Your task to perform on an android device: Open sound settings Image 0: 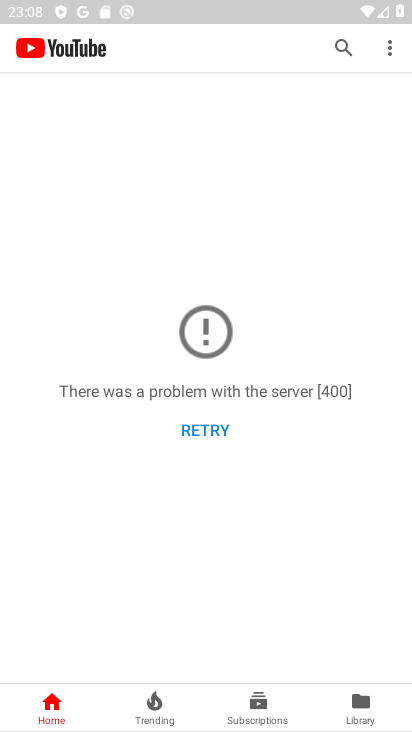
Step 0: press back button
Your task to perform on an android device: Open sound settings Image 1: 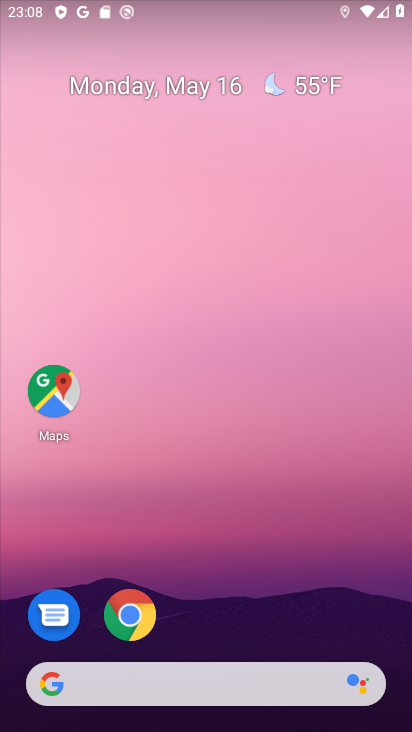
Step 1: drag from (207, 647) to (164, 153)
Your task to perform on an android device: Open sound settings Image 2: 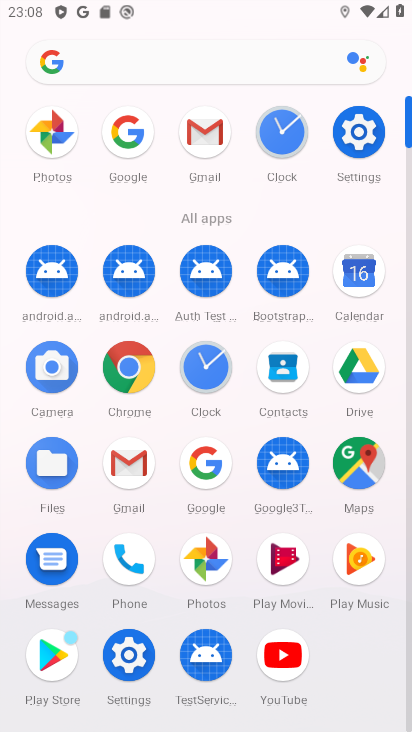
Step 2: click (126, 647)
Your task to perform on an android device: Open sound settings Image 3: 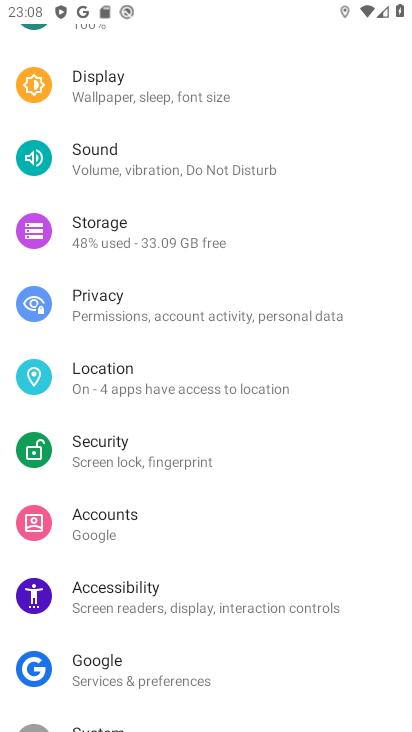
Step 3: click (118, 158)
Your task to perform on an android device: Open sound settings Image 4: 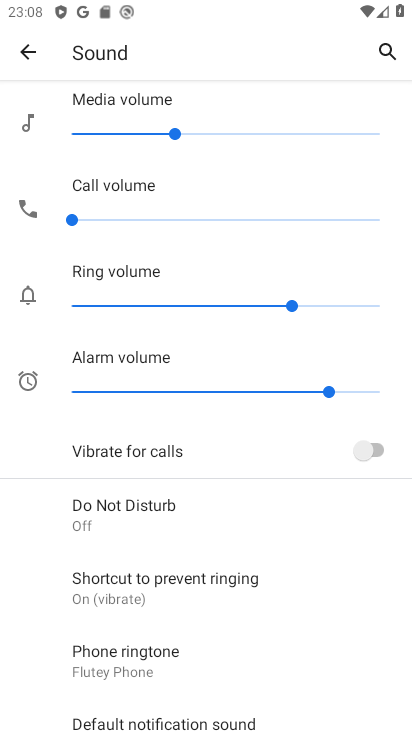
Step 4: task complete